Your task to perform on an android device: Show me the alarms in the clock app Image 0: 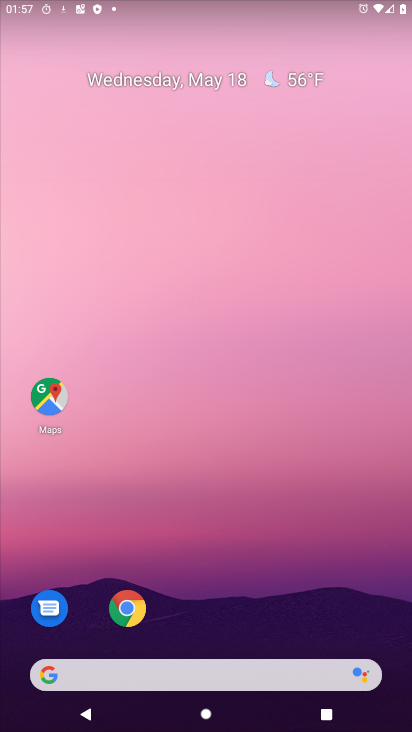
Step 0: press home button
Your task to perform on an android device: Show me the alarms in the clock app Image 1: 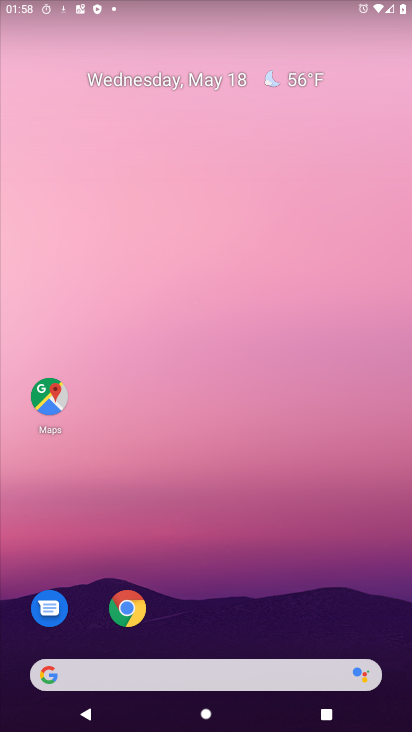
Step 1: drag from (276, 609) to (283, 252)
Your task to perform on an android device: Show me the alarms in the clock app Image 2: 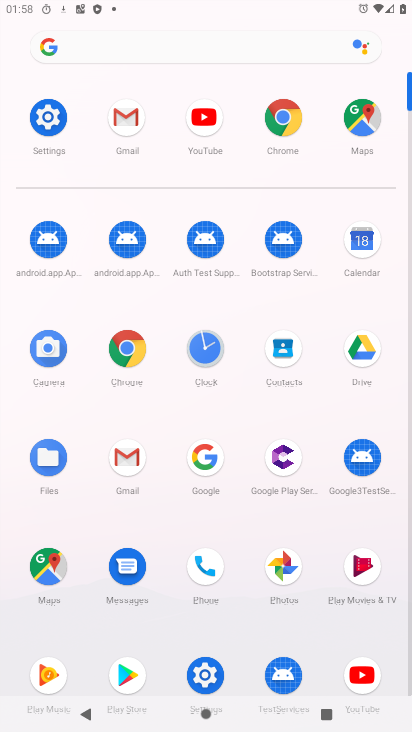
Step 2: click (207, 336)
Your task to perform on an android device: Show me the alarms in the clock app Image 3: 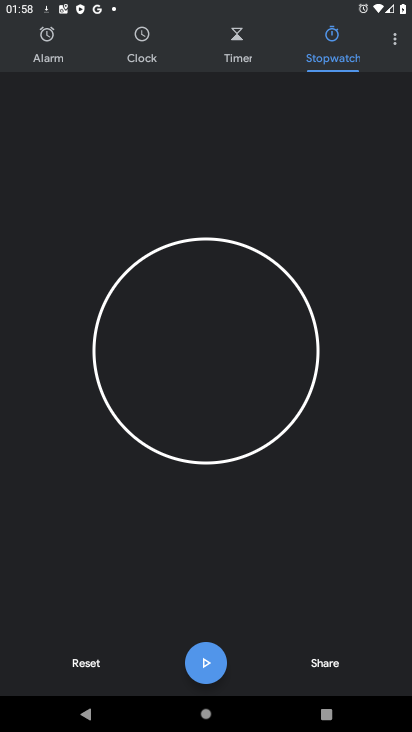
Step 3: click (58, 51)
Your task to perform on an android device: Show me the alarms in the clock app Image 4: 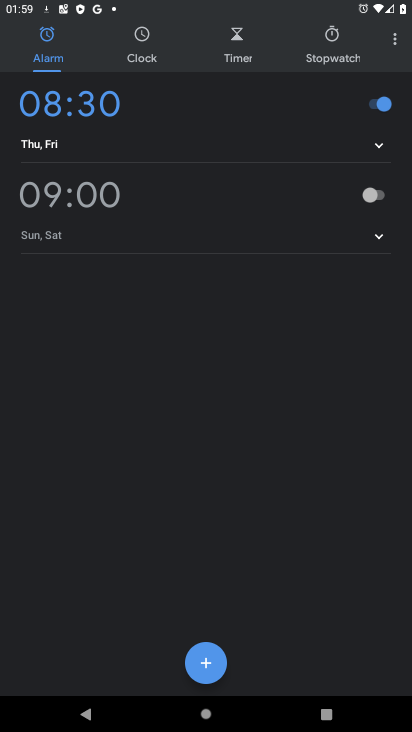
Step 4: task complete